Your task to perform on an android device: Search for sushi restaurants on Maps Image 0: 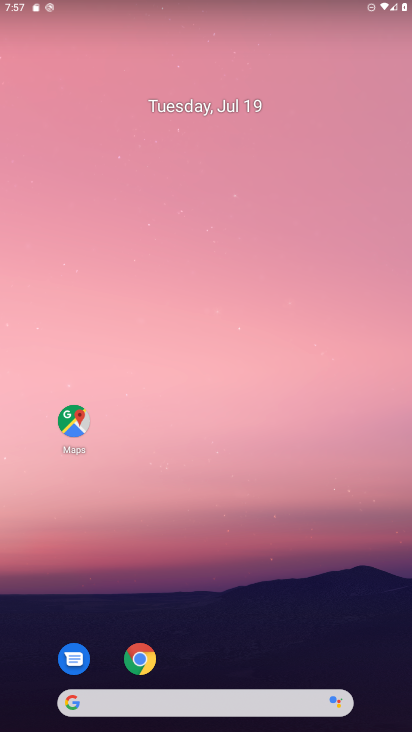
Step 0: drag from (214, 676) to (225, 206)
Your task to perform on an android device: Search for sushi restaurants on Maps Image 1: 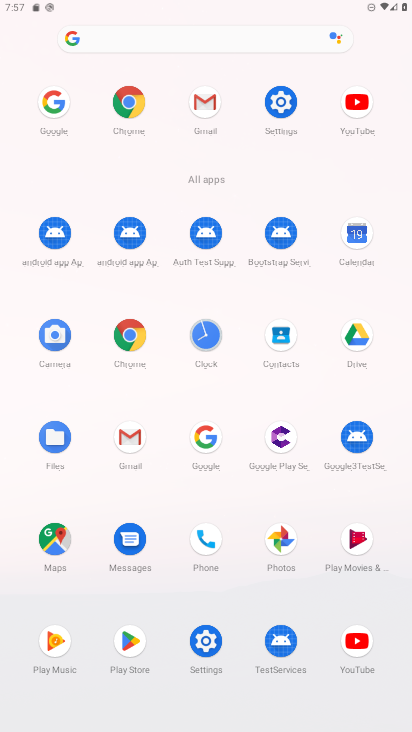
Step 1: click (51, 538)
Your task to perform on an android device: Search for sushi restaurants on Maps Image 2: 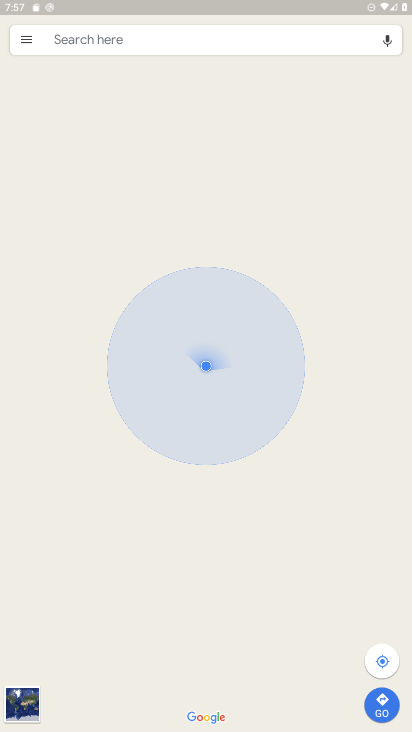
Step 2: click (166, 34)
Your task to perform on an android device: Search for sushi restaurants on Maps Image 3: 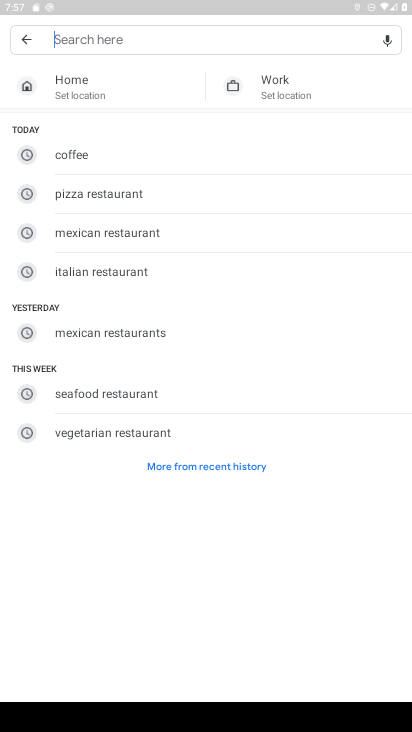
Step 3: click (130, 27)
Your task to perform on an android device: Search for sushi restaurants on Maps Image 4: 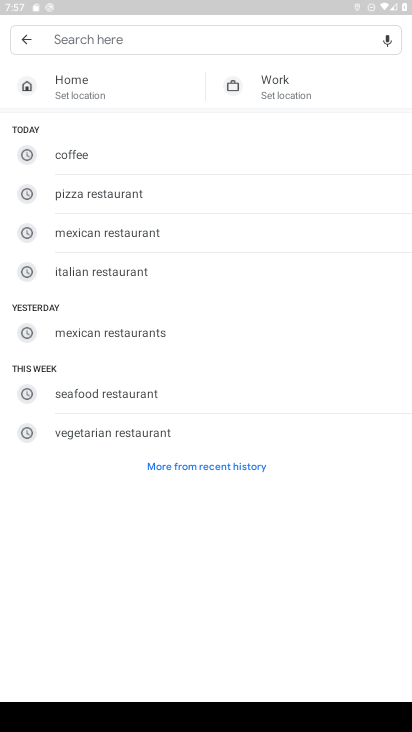
Step 4: type "sushi restaurant "
Your task to perform on an android device: Search for sushi restaurants on Maps Image 5: 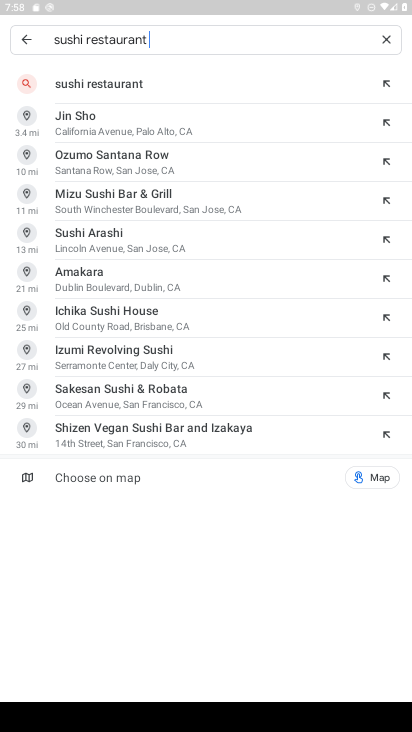
Step 5: click (199, 82)
Your task to perform on an android device: Search for sushi restaurants on Maps Image 6: 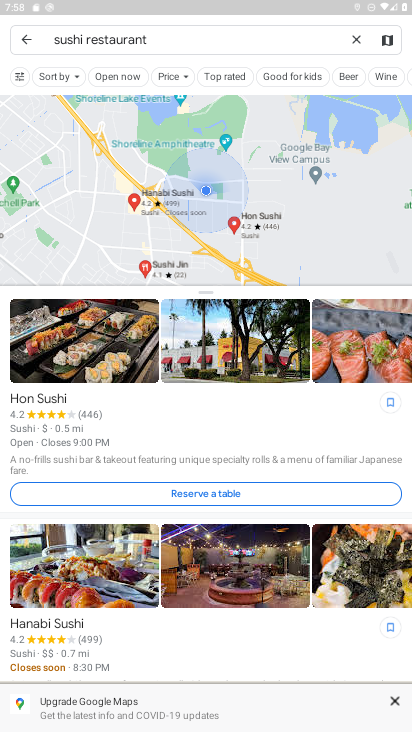
Step 6: task complete